Your task to perform on an android device: Open the stopwatch Image 0: 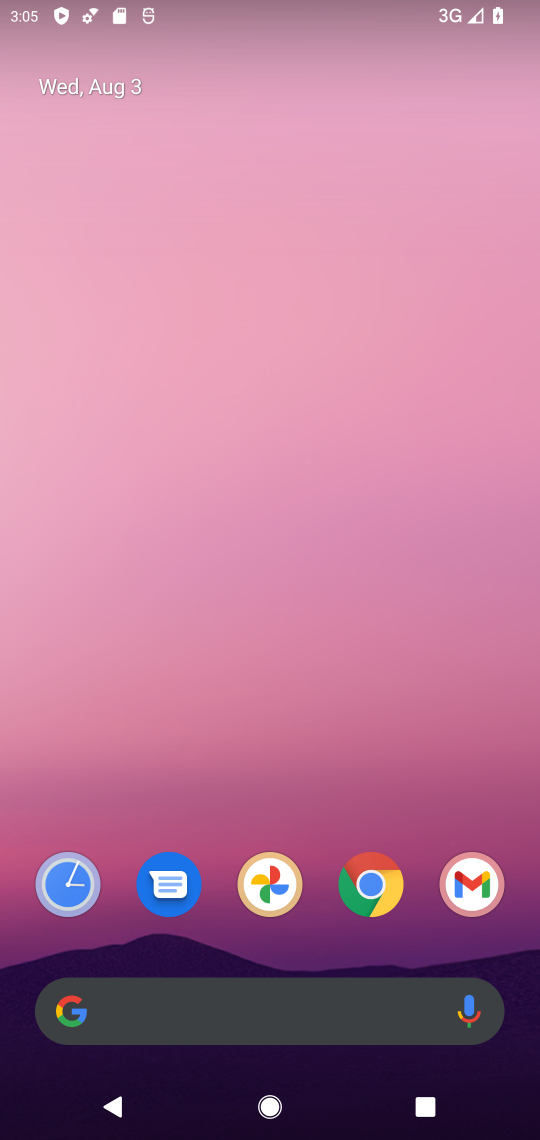
Step 0: task complete